Your task to perform on an android device: toggle translation in the chrome app Image 0: 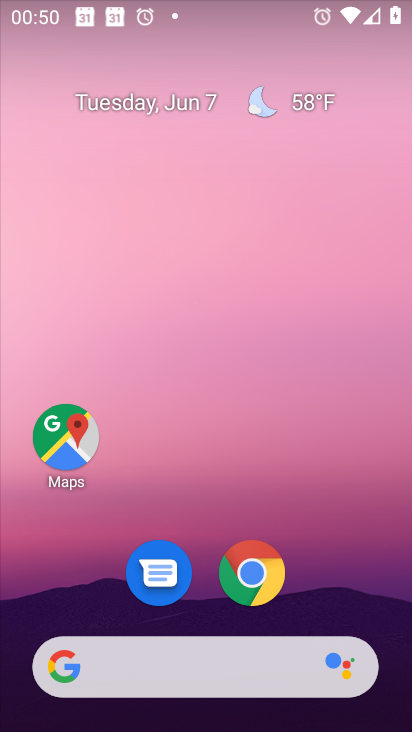
Step 0: press home button
Your task to perform on an android device: toggle translation in the chrome app Image 1: 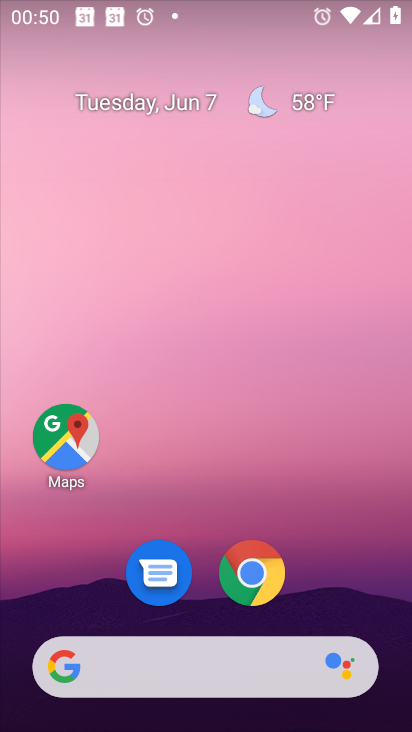
Step 1: drag from (382, 598) to (267, 2)
Your task to perform on an android device: toggle translation in the chrome app Image 2: 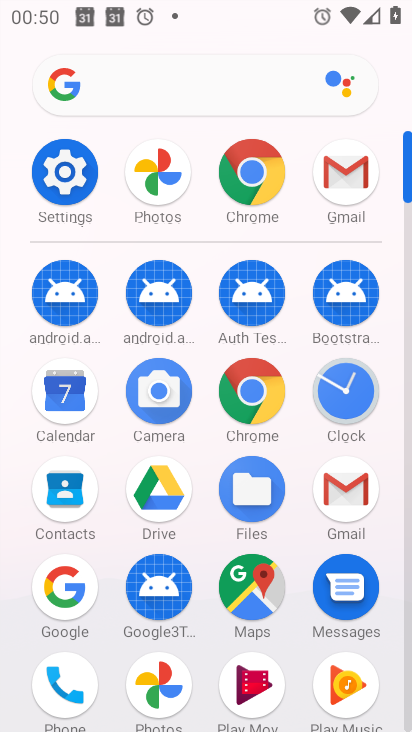
Step 2: click (233, 186)
Your task to perform on an android device: toggle translation in the chrome app Image 3: 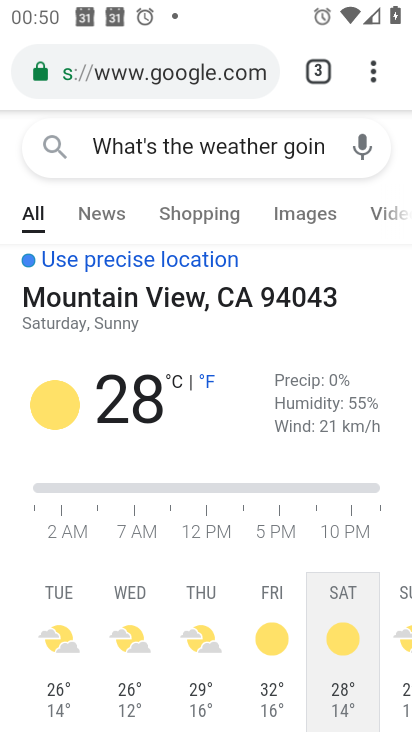
Step 3: drag from (378, 78) to (195, 570)
Your task to perform on an android device: toggle translation in the chrome app Image 4: 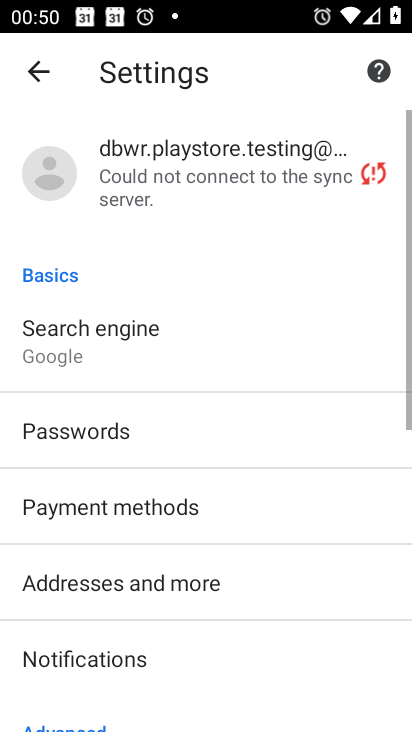
Step 4: drag from (189, 596) to (157, 145)
Your task to perform on an android device: toggle translation in the chrome app Image 5: 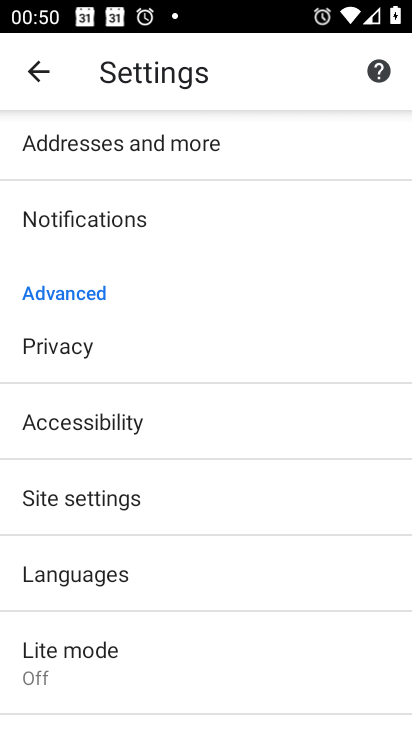
Step 5: click (130, 574)
Your task to perform on an android device: toggle translation in the chrome app Image 6: 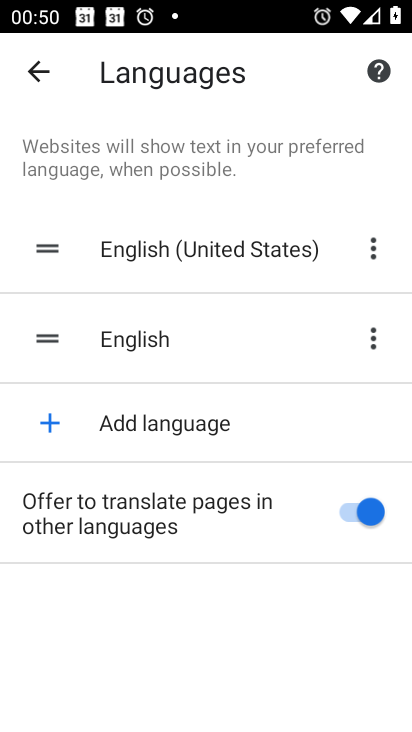
Step 6: click (171, 516)
Your task to perform on an android device: toggle translation in the chrome app Image 7: 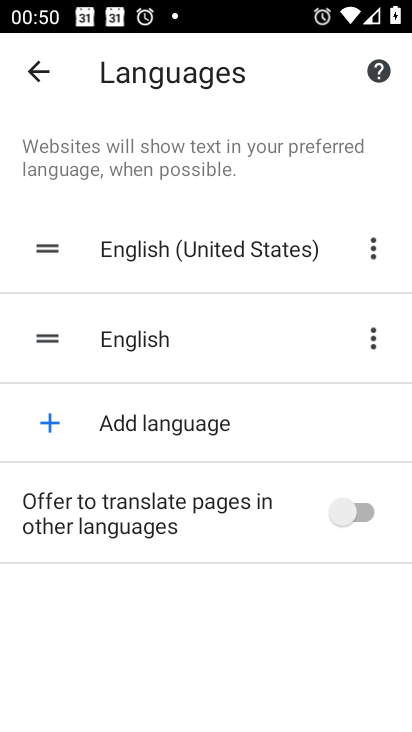
Step 7: task complete